Your task to perform on an android device: Open notification settings Image 0: 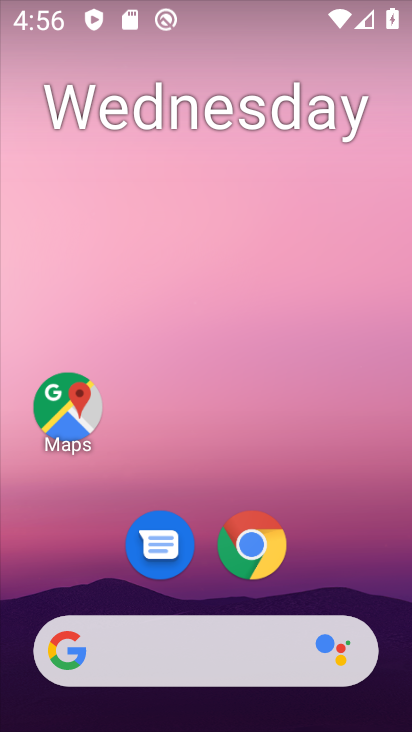
Step 0: drag from (318, 585) to (309, 181)
Your task to perform on an android device: Open notification settings Image 1: 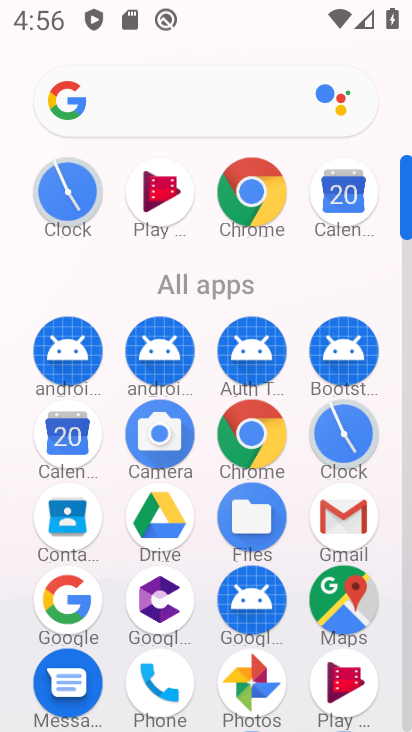
Step 1: drag from (303, 558) to (296, 238)
Your task to perform on an android device: Open notification settings Image 2: 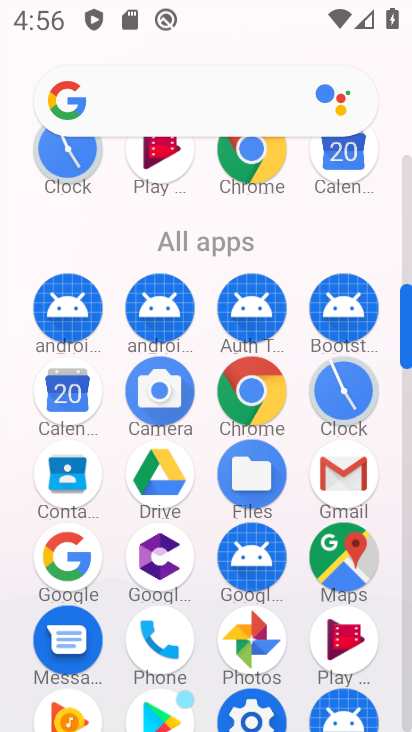
Step 2: click (251, 710)
Your task to perform on an android device: Open notification settings Image 3: 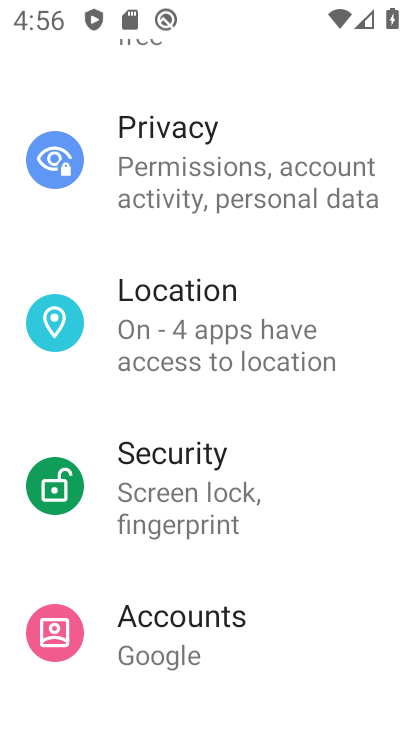
Step 3: drag from (219, 165) to (258, 532)
Your task to perform on an android device: Open notification settings Image 4: 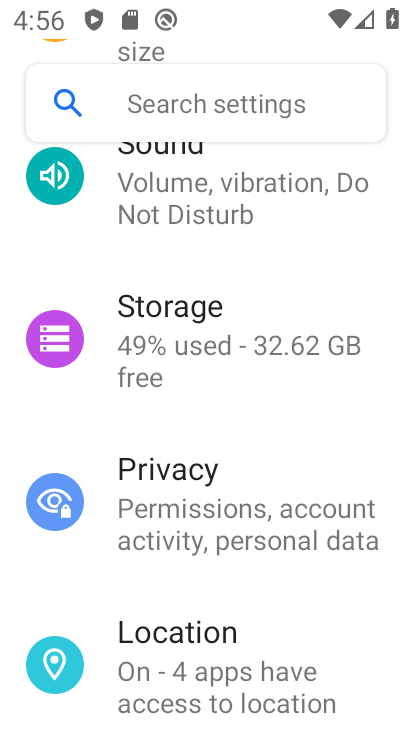
Step 4: drag from (212, 219) to (252, 533)
Your task to perform on an android device: Open notification settings Image 5: 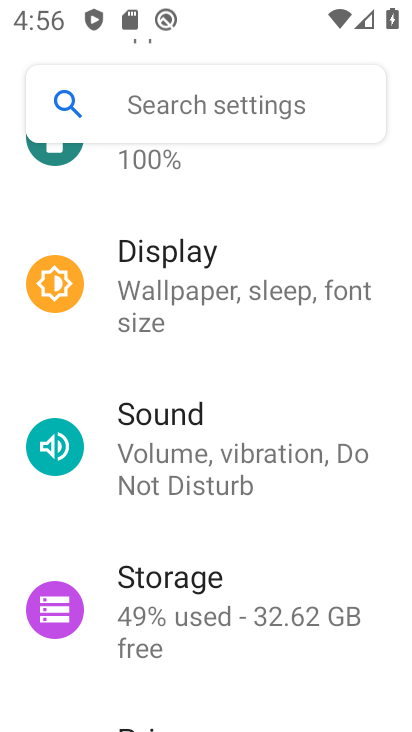
Step 5: drag from (238, 244) to (253, 540)
Your task to perform on an android device: Open notification settings Image 6: 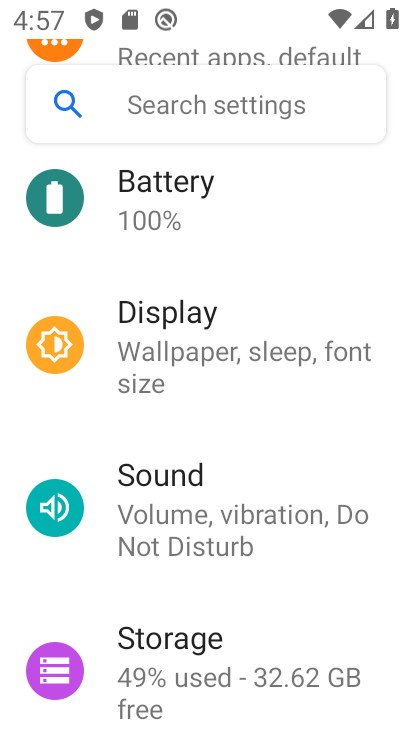
Step 6: drag from (231, 221) to (279, 651)
Your task to perform on an android device: Open notification settings Image 7: 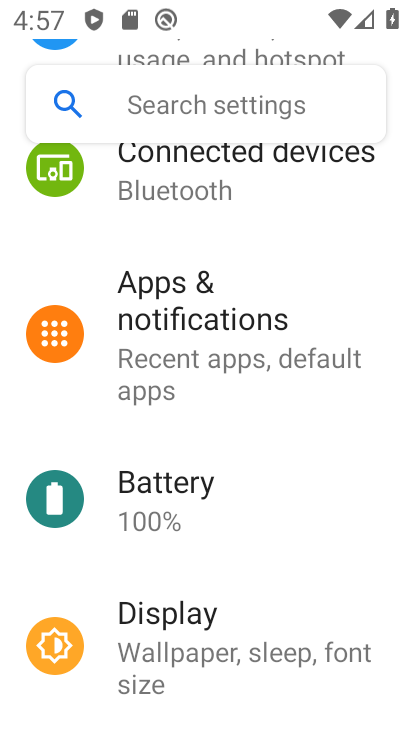
Step 7: drag from (230, 302) to (252, 626)
Your task to perform on an android device: Open notification settings Image 8: 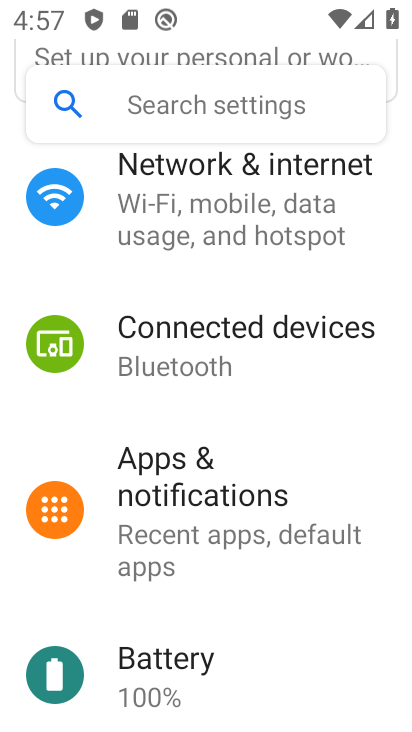
Step 8: click (217, 542)
Your task to perform on an android device: Open notification settings Image 9: 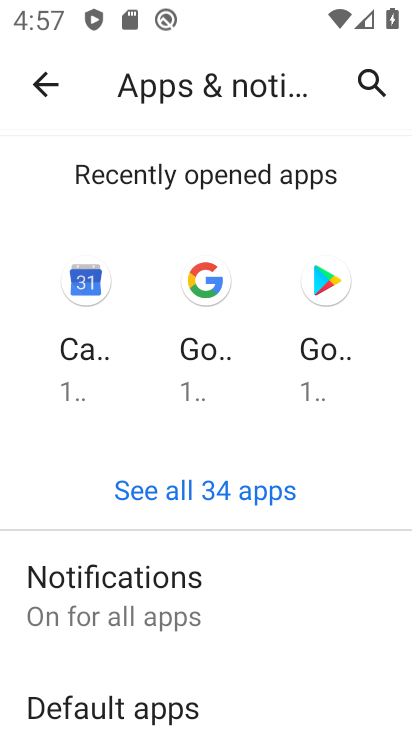
Step 9: click (161, 599)
Your task to perform on an android device: Open notification settings Image 10: 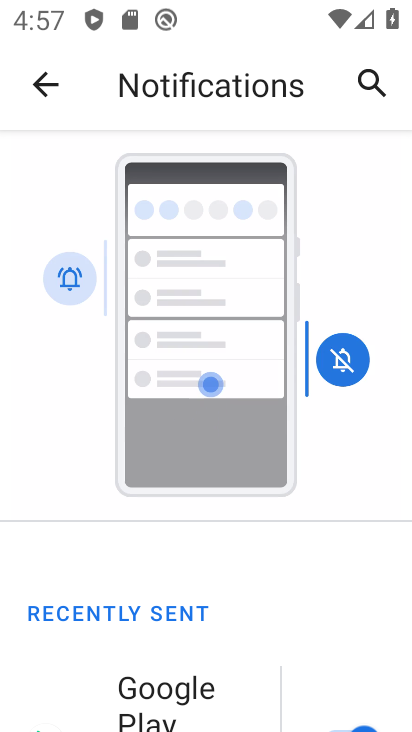
Step 10: task complete